Your task to perform on an android device: turn off location Image 0: 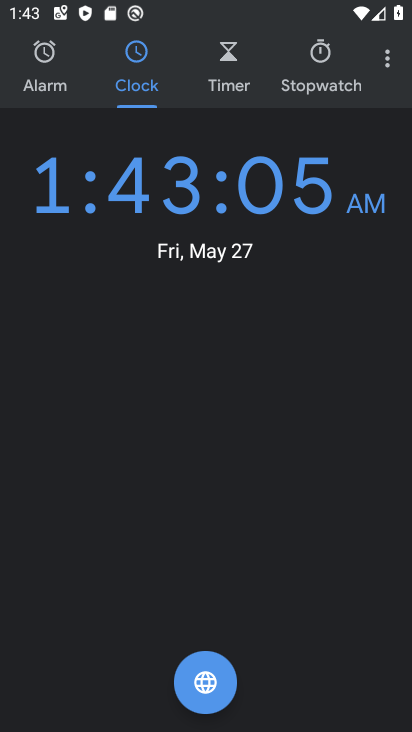
Step 0: press home button
Your task to perform on an android device: turn off location Image 1: 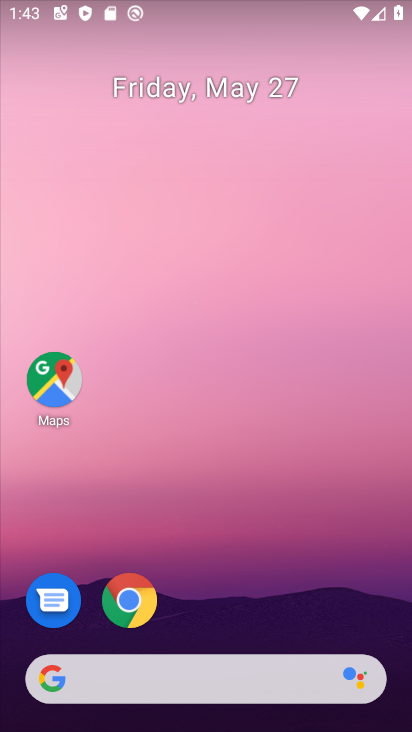
Step 1: drag from (243, 725) to (243, 129)
Your task to perform on an android device: turn off location Image 2: 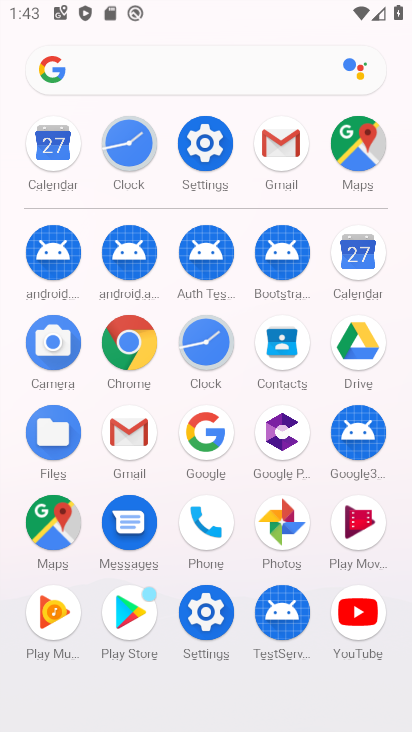
Step 2: click (216, 143)
Your task to perform on an android device: turn off location Image 3: 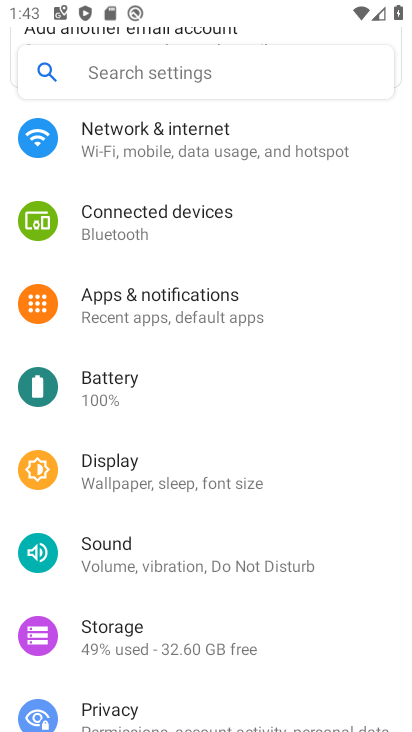
Step 3: drag from (169, 658) to (174, 178)
Your task to perform on an android device: turn off location Image 4: 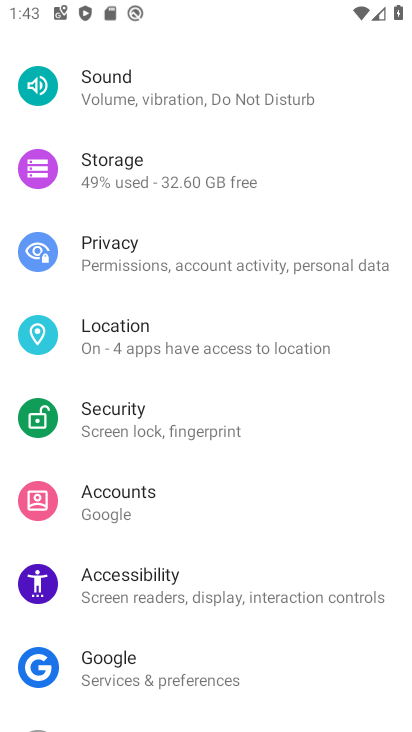
Step 4: click (120, 341)
Your task to perform on an android device: turn off location Image 5: 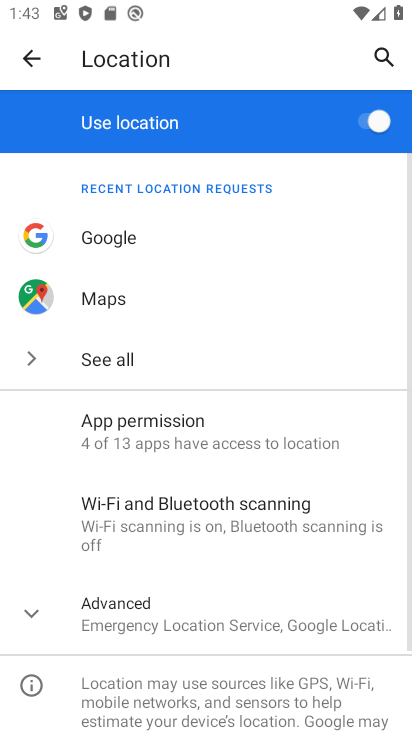
Step 5: click (365, 121)
Your task to perform on an android device: turn off location Image 6: 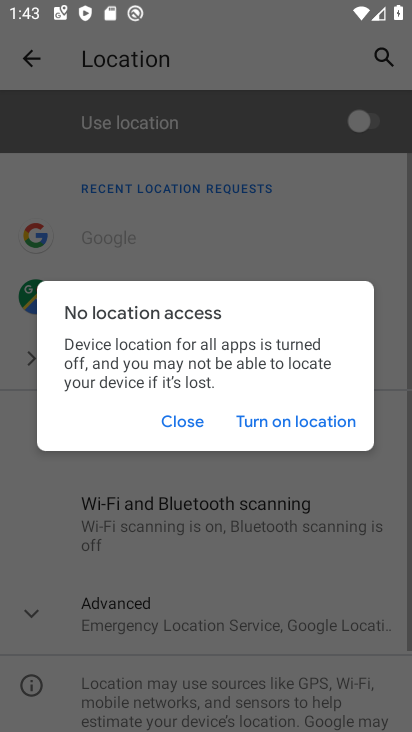
Step 6: task complete